Your task to perform on an android device: Search for a 36" x 48" whiteboard on Home Depot Image 0: 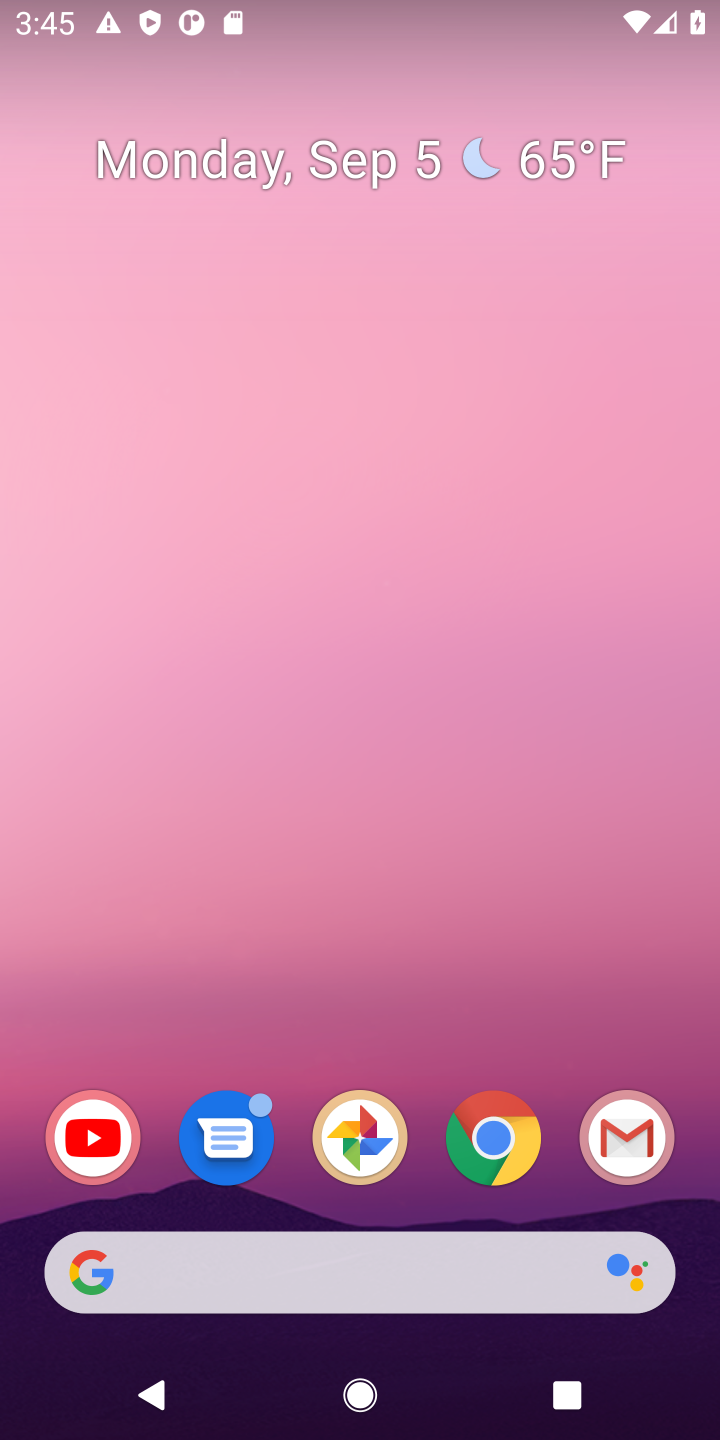
Step 0: click (462, 1134)
Your task to perform on an android device: Search for a 36" x 48" whiteboard on Home Depot Image 1: 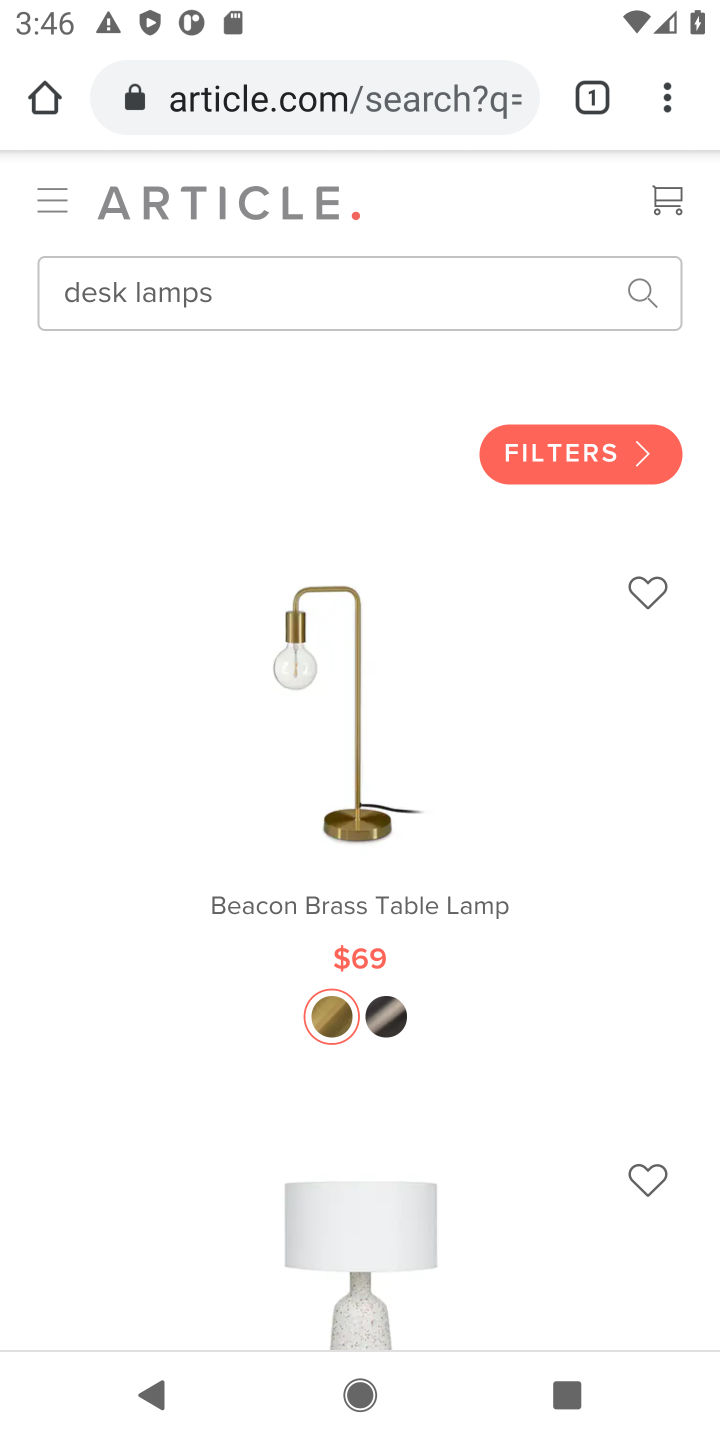
Step 1: click (355, 118)
Your task to perform on an android device: Search for a 36" x 48" whiteboard on Home Depot Image 2: 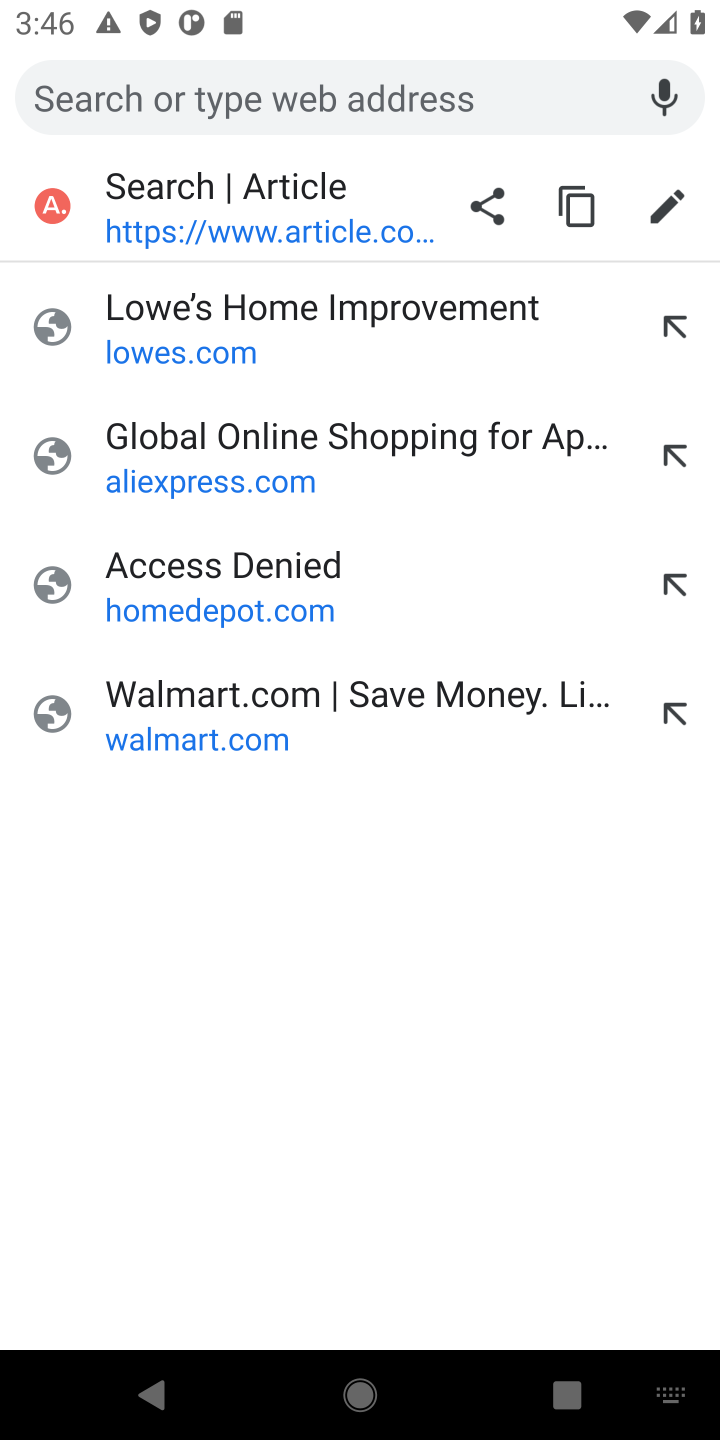
Step 2: type "home depot"
Your task to perform on an android device: Search for a 36" x 48" whiteboard on Home Depot Image 3: 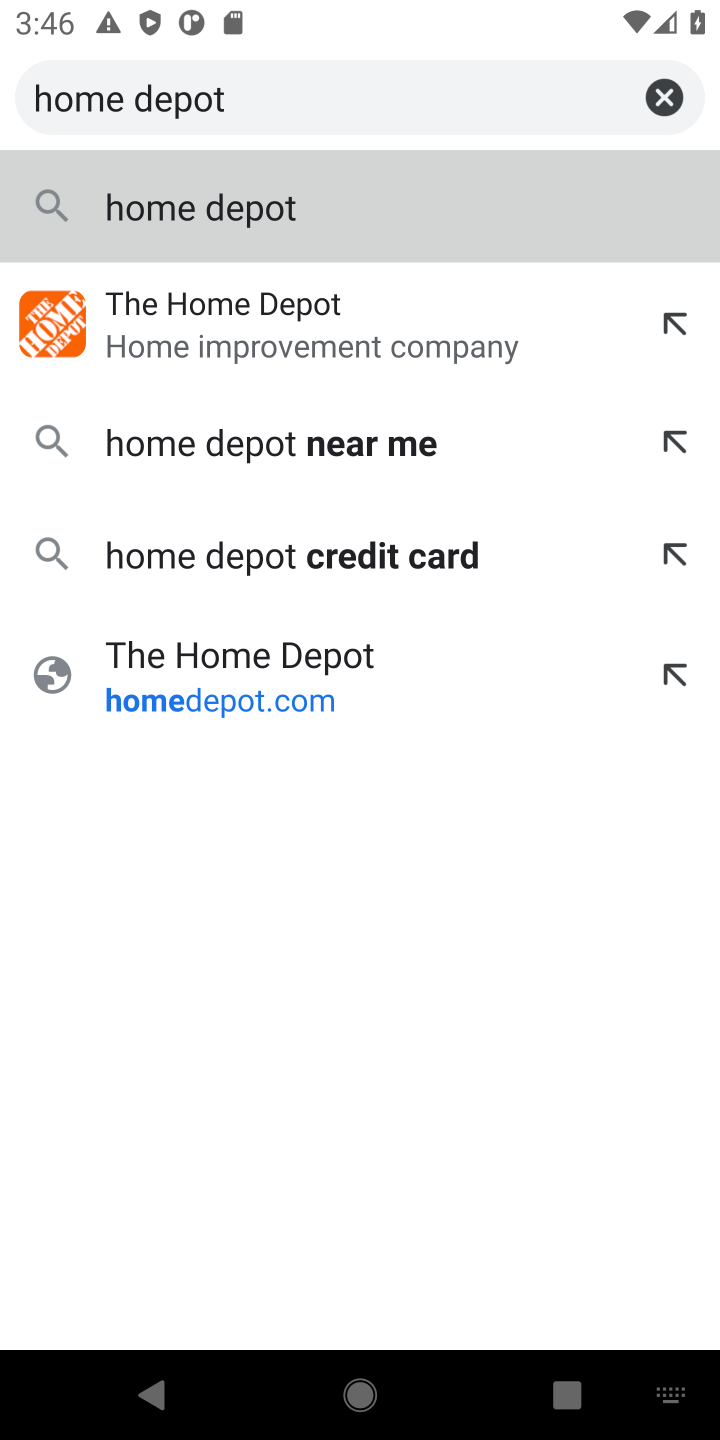
Step 3: click (296, 673)
Your task to perform on an android device: Search for a 36" x 48" whiteboard on Home Depot Image 4: 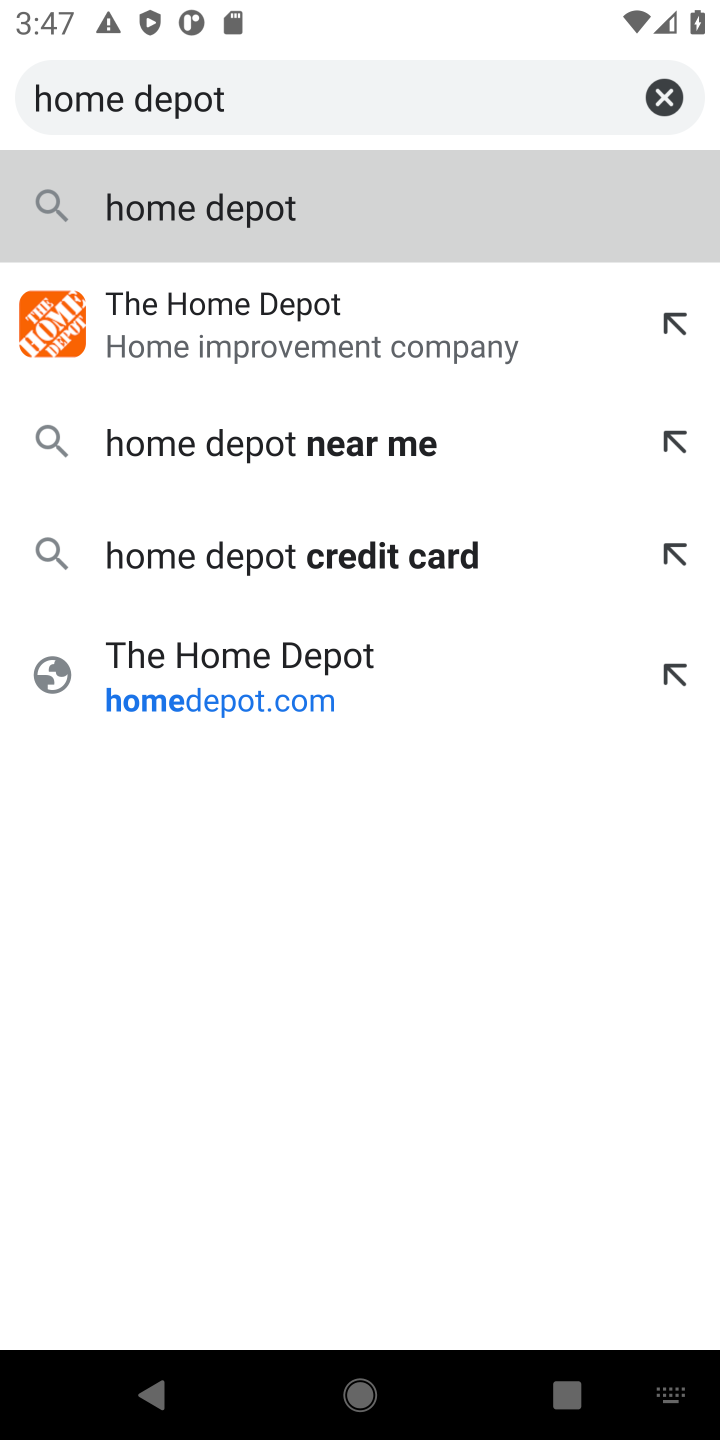
Step 4: click (306, 682)
Your task to perform on an android device: Search for a 36" x 48" whiteboard on Home Depot Image 5: 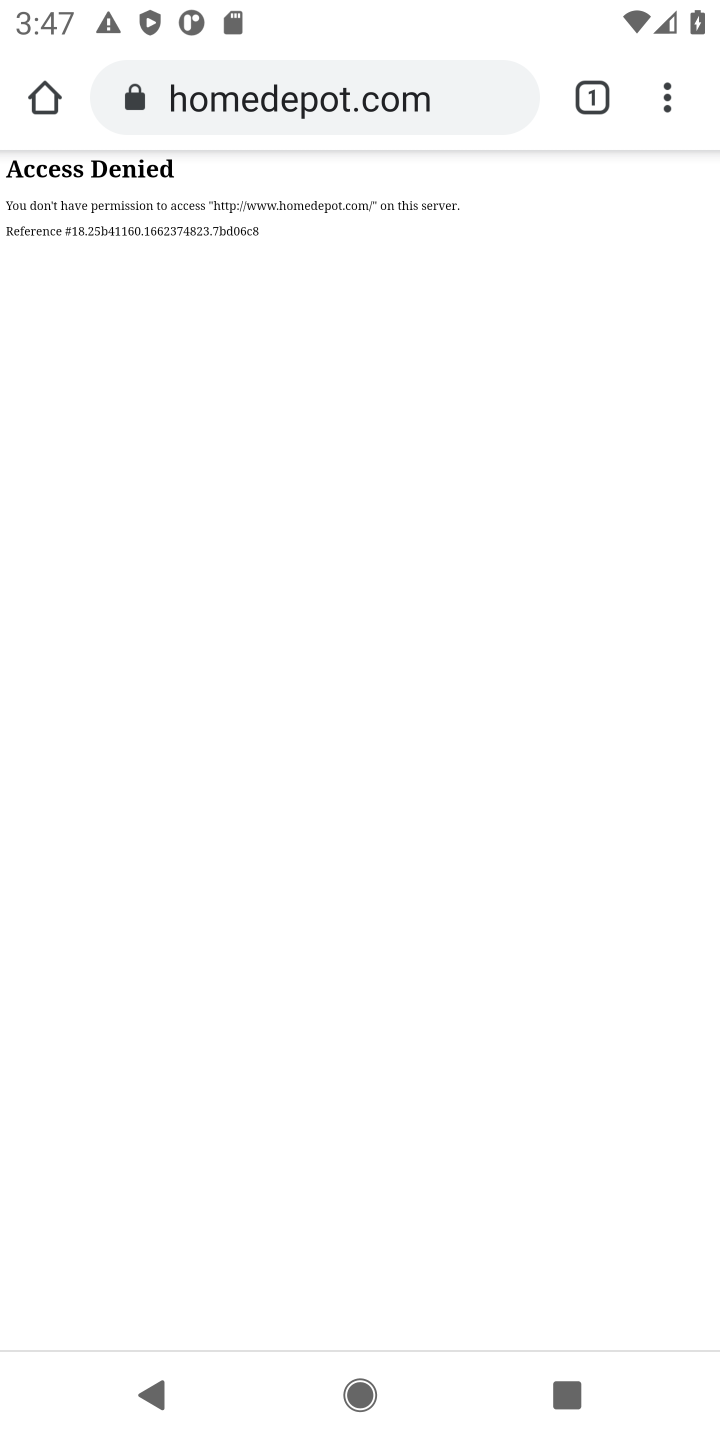
Step 5: task complete